Your task to perform on an android device: toggle pop-ups in chrome Image 0: 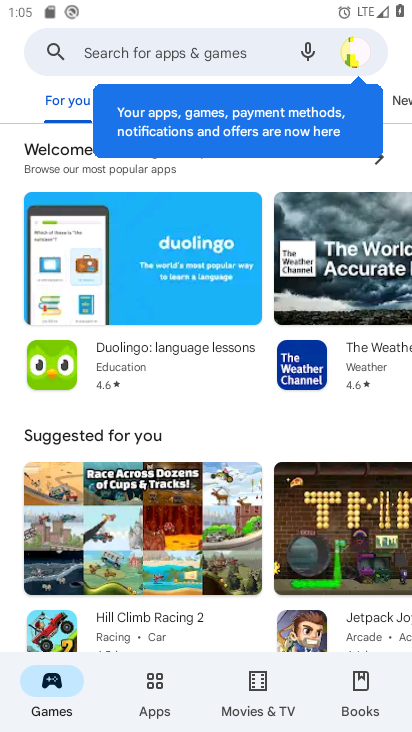
Step 0: press home button
Your task to perform on an android device: toggle pop-ups in chrome Image 1: 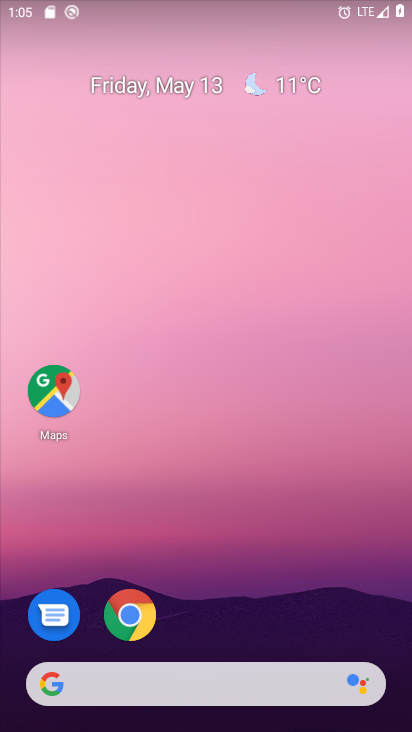
Step 1: click (132, 615)
Your task to perform on an android device: toggle pop-ups in chrome Image 2: 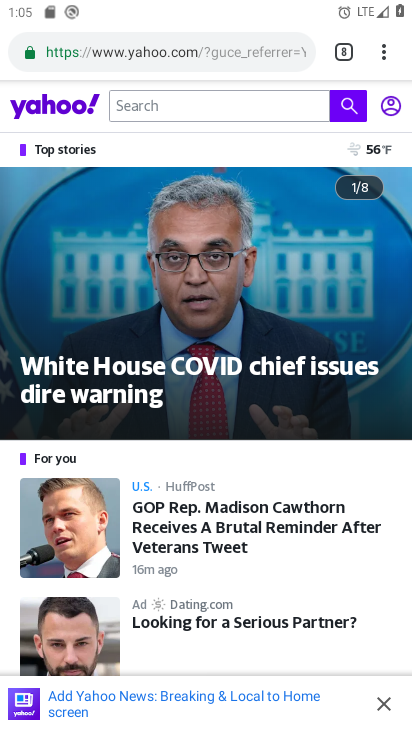
Step 2: click (383, 52)
Your task to perform on an android device: toggle pop-ups in chrome Image 3: 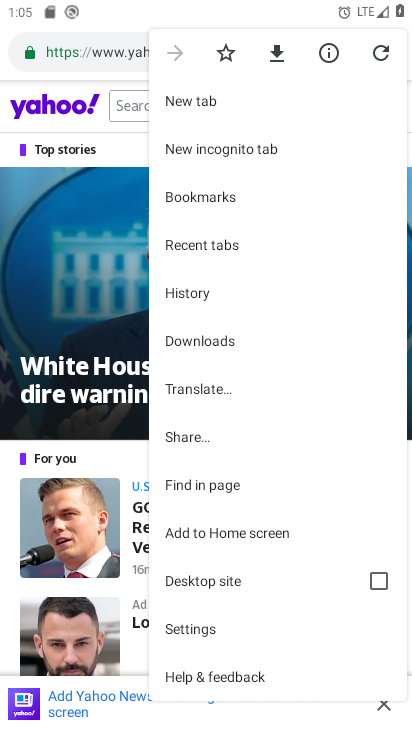
Step 3: click (192, 619)
Your task to perform on an android device: toggle pop-ups in chrome Image 4: 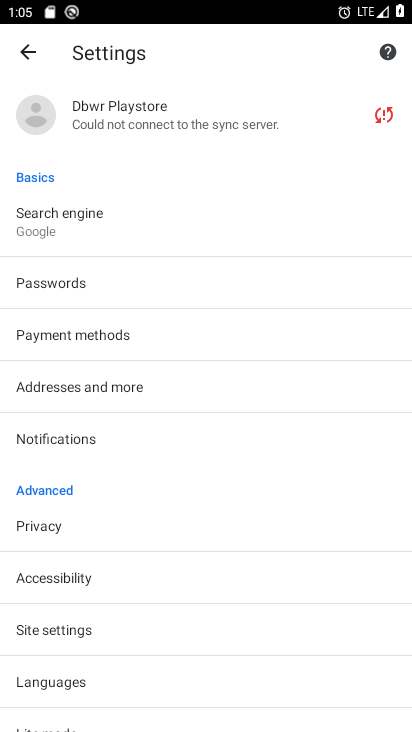
Step 4: click (195, 631)
Your task to perform on an android device: toggle pop-ups in chrome Image 5: 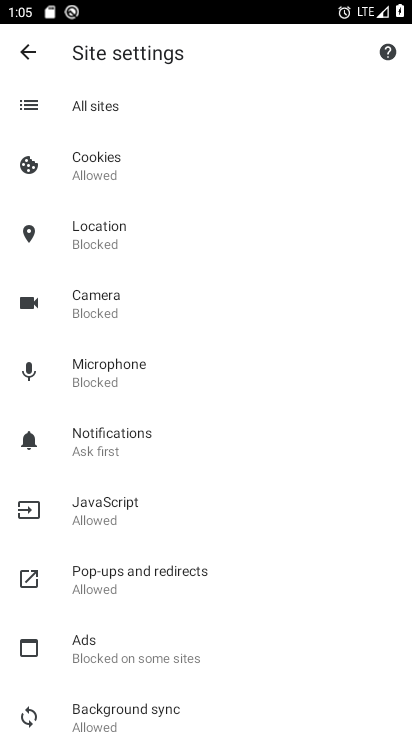
Step 5: click (221, 573)
Your task to perform on an android device: toggle pop-ups in chrome Image 6: 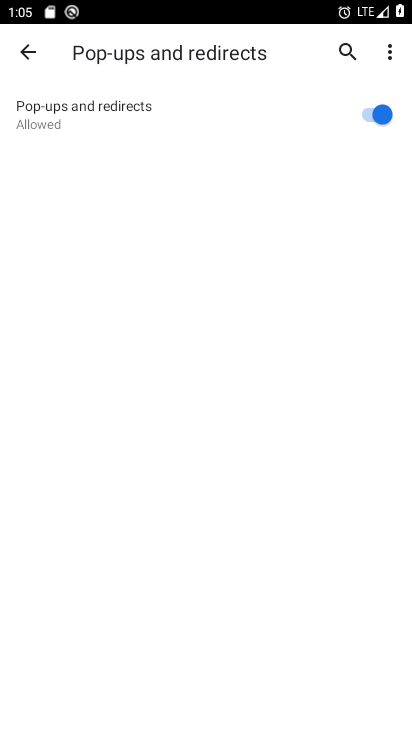
Step 6: click (371, 107)
Your task to perform on an android device: toggle pop-ups in chrome Image 7: 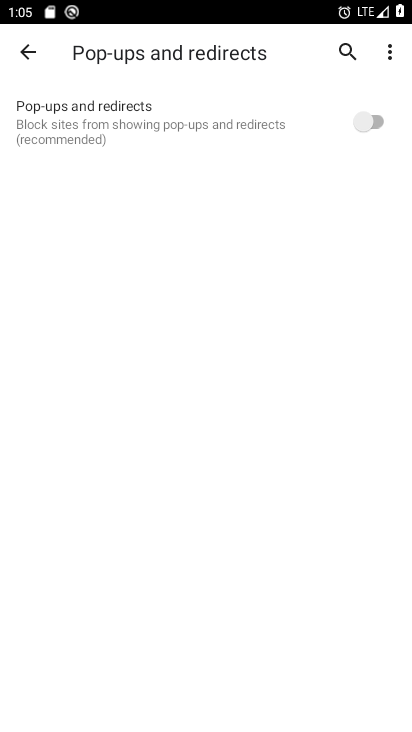
Step 7: task complete